Your task to perform on an android device: turn off smart reply in the gmail app Image 0: 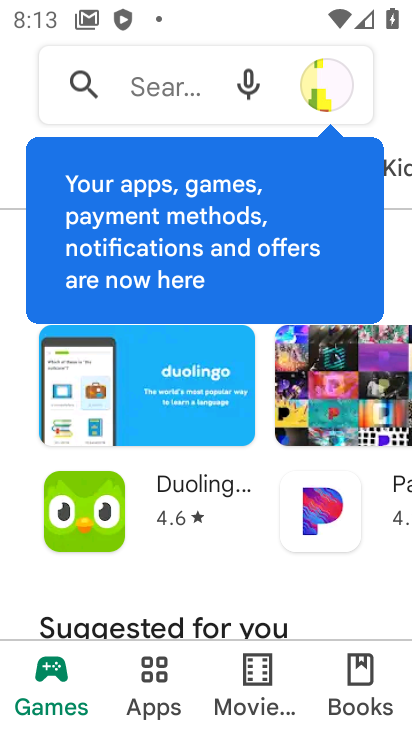
Step 0: press home button
Your task to perform on an android device: turn off smart reply in the gmail app Image 1: 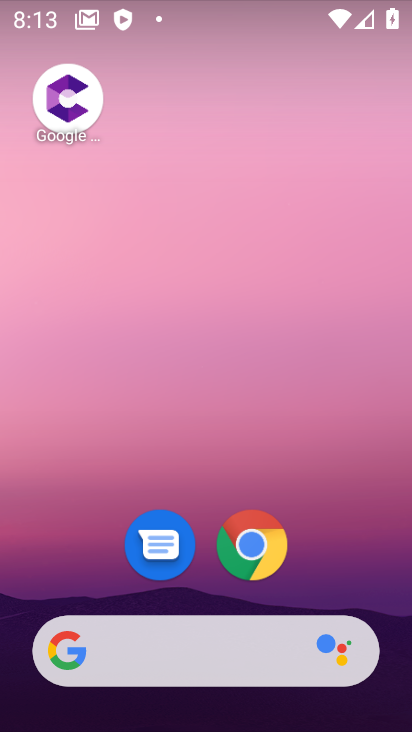
Step 1: drag from (217, 592) to (284, 139)
Your task to perform on an android device: turn off smart reply in the gmail app Image 2: 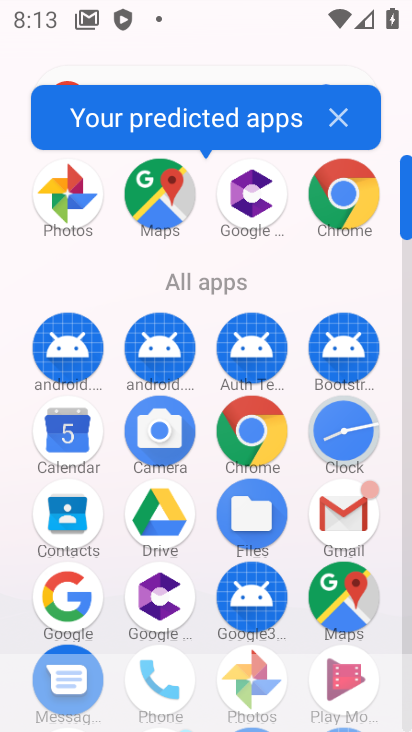
Step 2: click (336, 505)
Your task to perform on an android device: turn off smart reply in the gmail app Image 3: 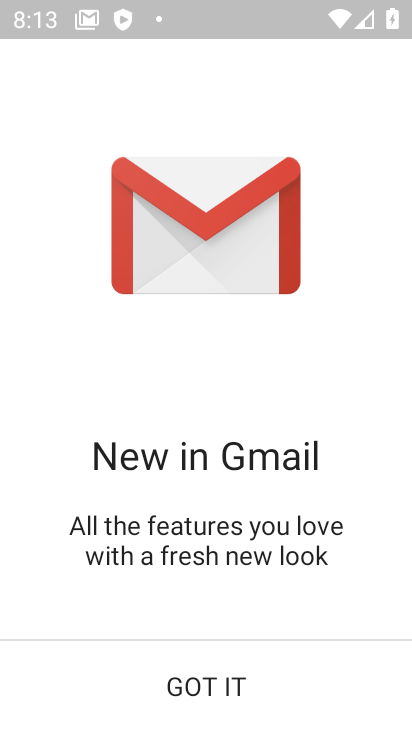
Step 3: click (224, 699)
Your task to perform on an android device: turn off smart reply in the gmail app Image 4: 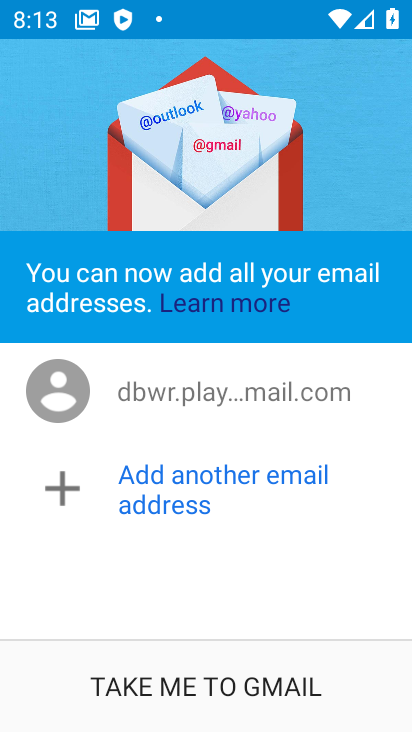
Step 4: click (224, 699)
Your task to perform on an android device: turn off smart reply in the gmail app Image 5: 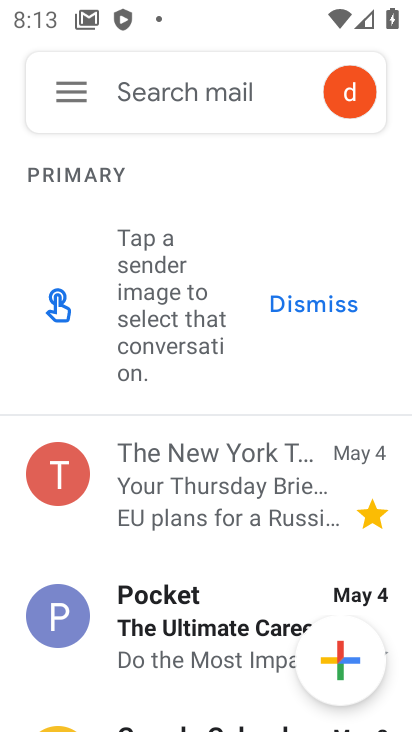
Step 5: click (65, 113)
Your task to perform on an android device: turn off smart reply in the gmail app Image 6: 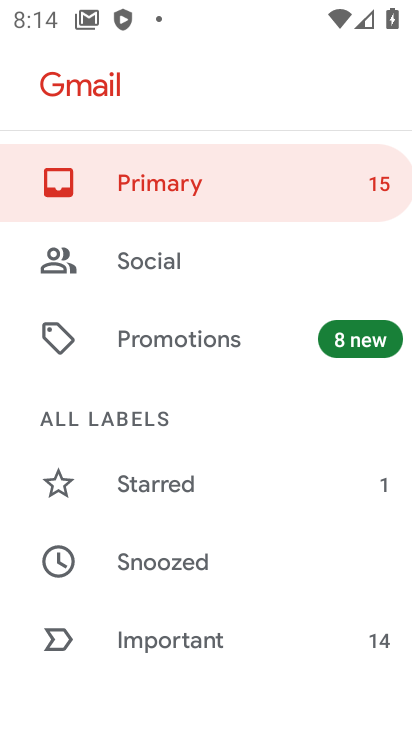
Step 6: drag from (202, 618) to (181, 149)
Your task to perform on an android device: turn off smart reply in the gmail app Image 7: 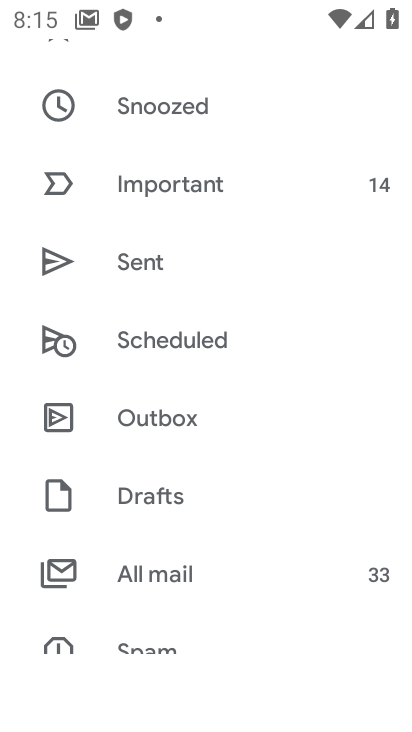
Step 7: drag from (129, 594) to (160, 172)
Your task to perform on an android device: turn off smart reply in the gmail app Image 8: 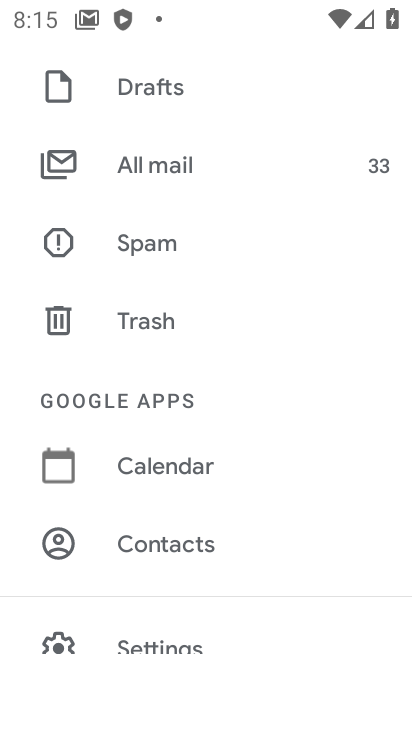
Step 8: click (125, 639)
Your task to perform on an android device: turn off smart reply in the gmail app Image 9: 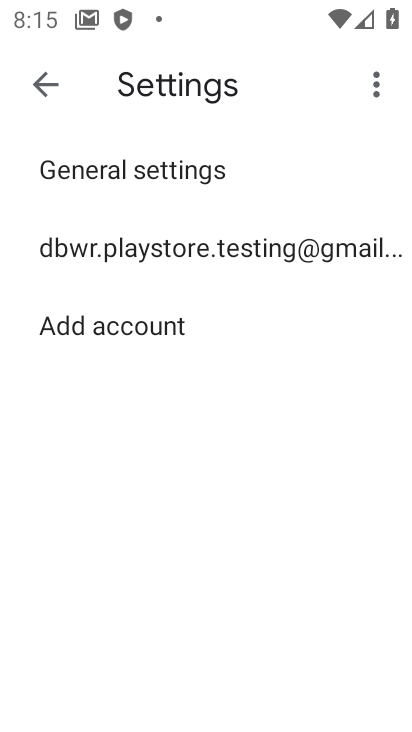
Step 9: click (255, 262)
Your task to perform on an android device: turn off smart reply in the gmail app Image 10: 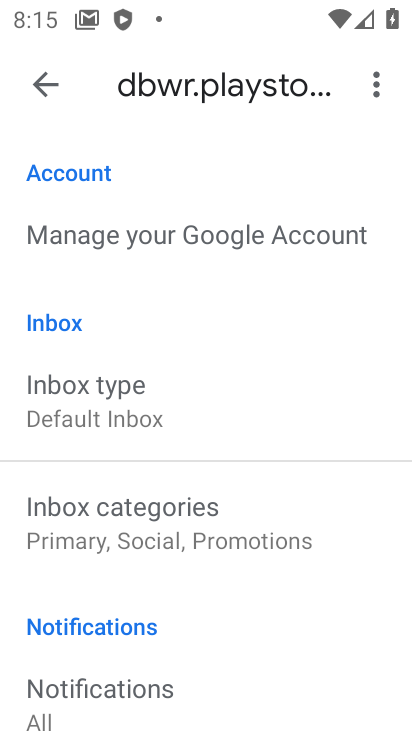
Step 10: drag from (61, 592) to (183, 110)
Your task to perform on an android device: turn off smart reply in the gmail app Image 11: 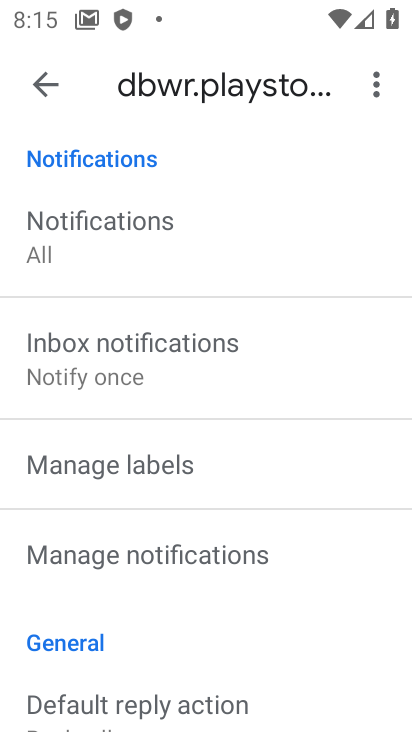
Step 11: drag from (46, 679) to (191, 162)
Your task to perform on an android device: turn off smart reply in the gmail app Image 12: 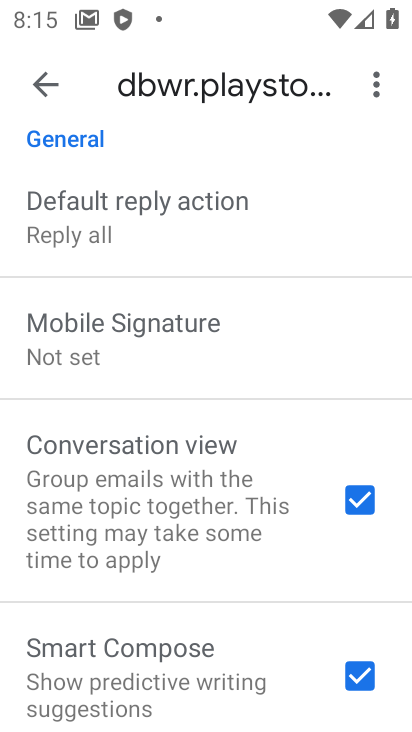
Step 12: drag from (35, 625) to (247, 137)
Your task to perform on an android device: turn off smart reply in the gmail app Image 13: 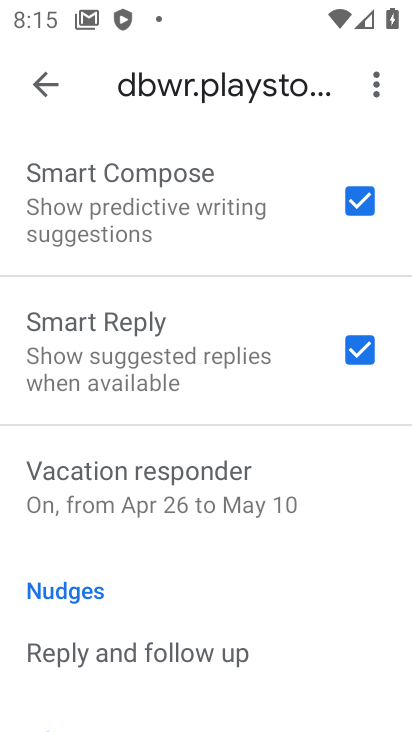
Step 13: click (364, 352)
Your task to perform on an android device: turn off smart reply in the gmail app Image 14: 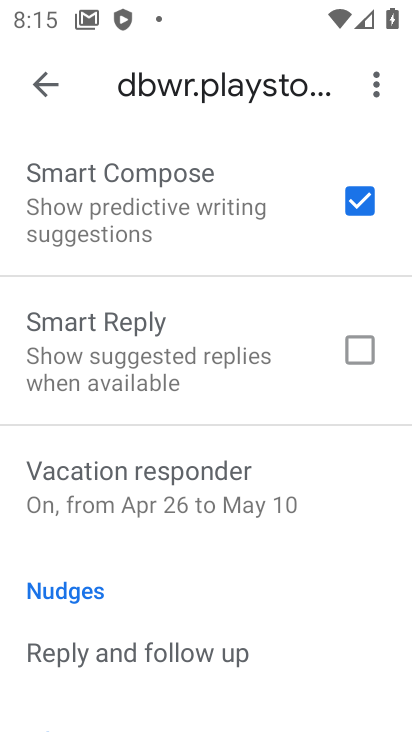
Step 14: task complete